Your task to perform on an android device: turn on sleep mode Image 0: 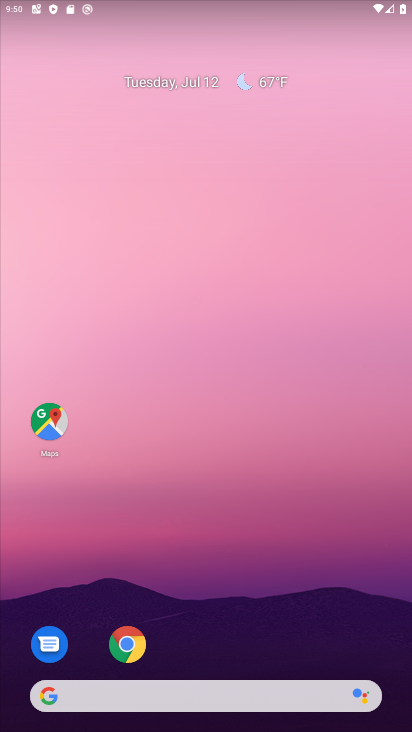
Step 0: drag from (166, 647) to (165, 101)
Your task to perform on an android device: turn on sleep mode Image 1: 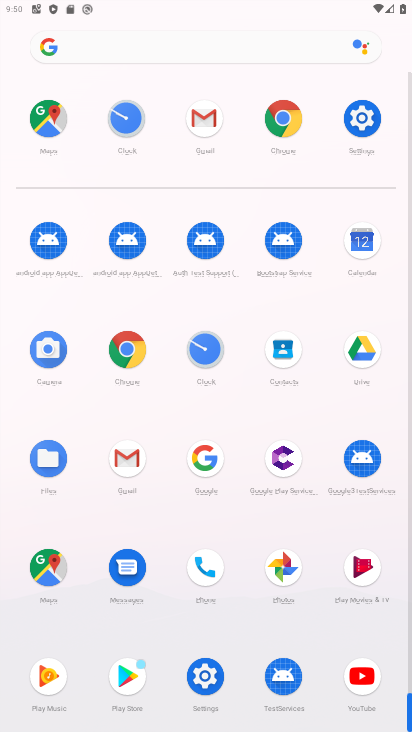
Step 1: click (197, 680)
Your task to perform on an android device: turn on sleep mode Image 2: 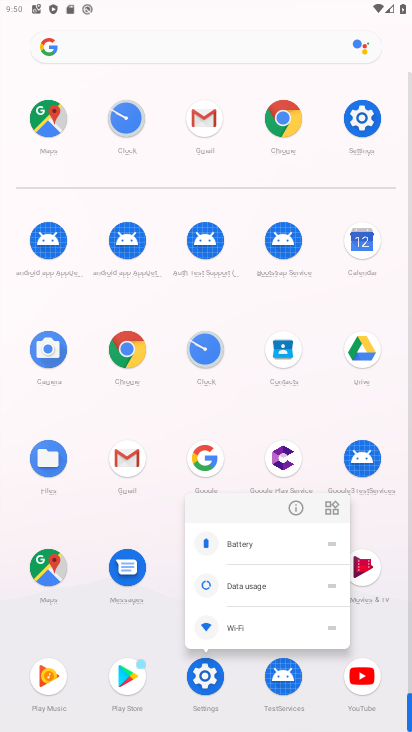
Step 2: click (295, 509)
Your task to perform on an android device: turn on sleep mode Image 3: 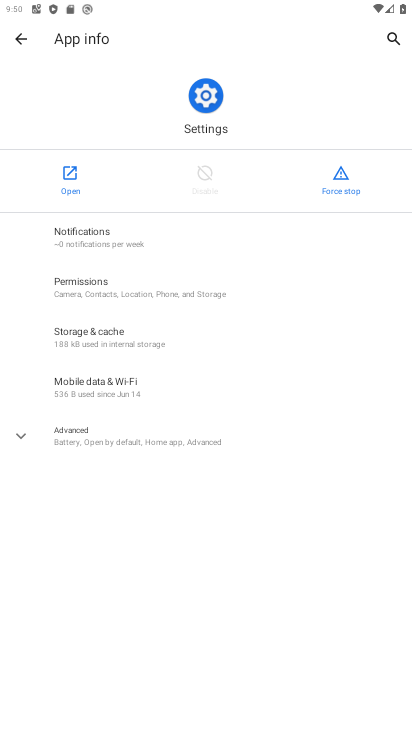
Step 3: click (72, 174)
Your task to perform on an android device: turn on sleep mode Image 4: 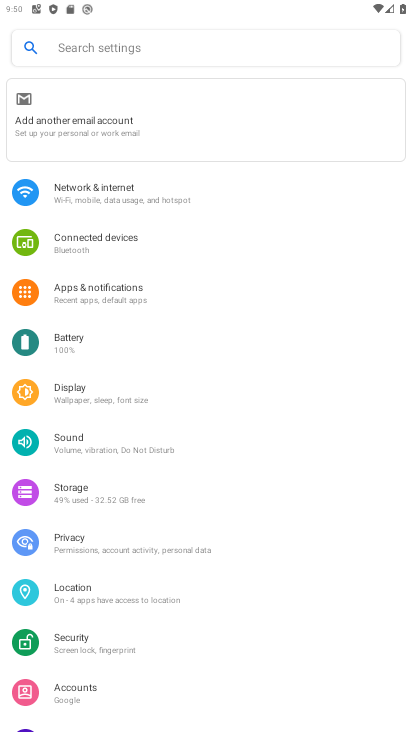
Step 4: click (71, 388)
Your task to perform on an android device: turn on sleep mode Image 5: 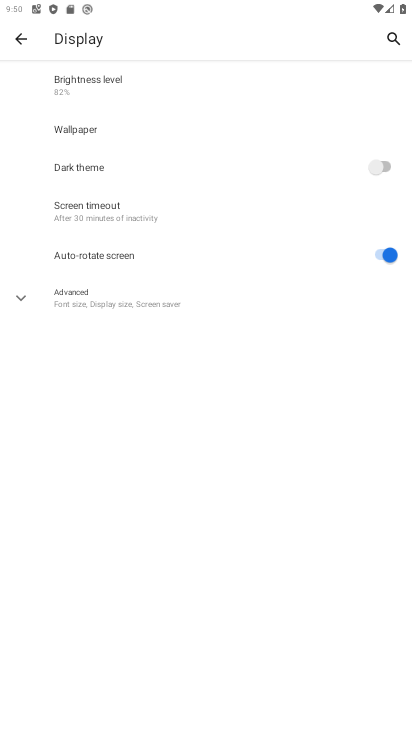
Step 5: click (160, 224)
Your task to perform on an android device: turn on sleep mode Image 6: 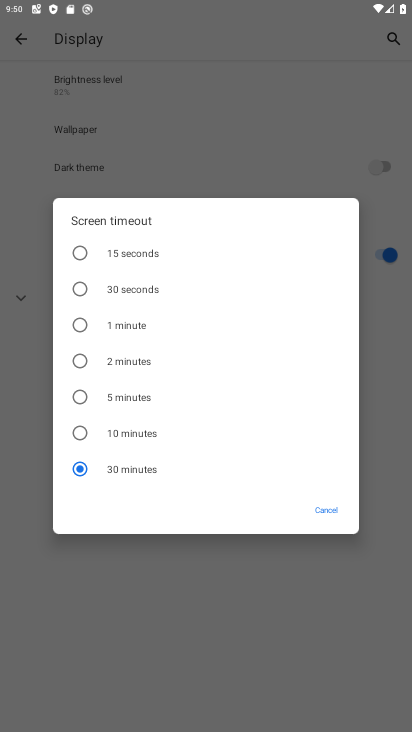
Step 6: task complete